Your task to perform on an android device: Go to Android settings Image 0: 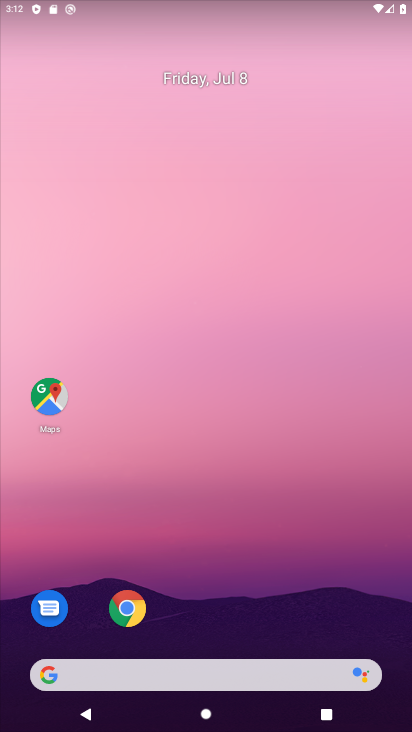
Step 0: drag from (222, 559) to (230, 152)
Your task to perform on an android device: Go to Android settings Image 1: 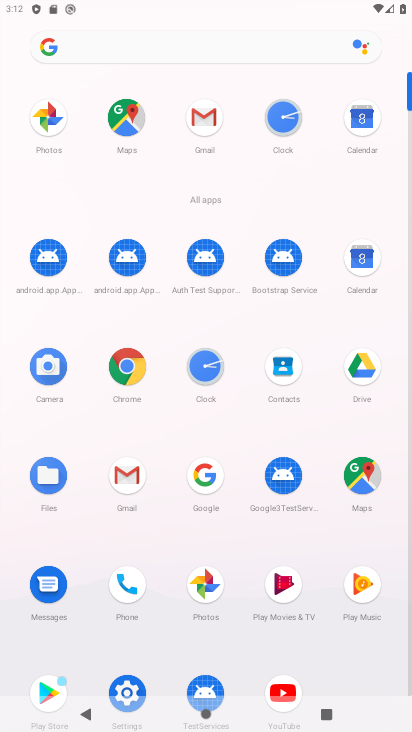
Step 1: click (123, 683)
Your task to perform on an android device: Go to Android settings Image 2: 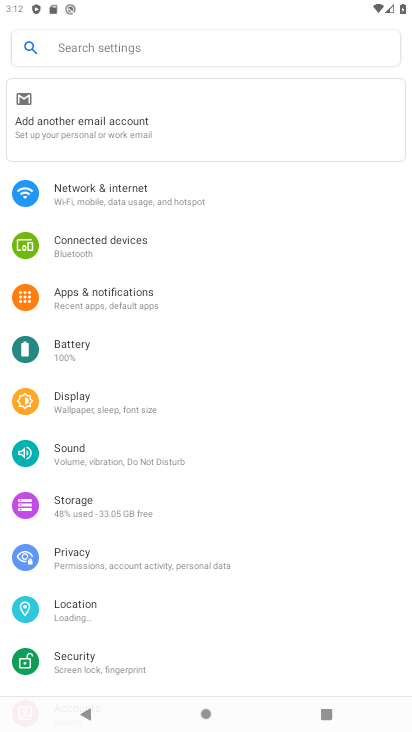
Step 2: drag from (261, 578) to (280, 8)
Your task to perform on an android device: Go to Android settings Image 3: 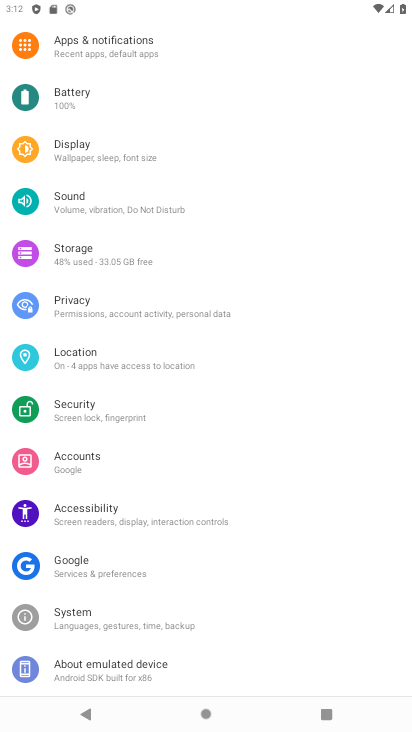
Step 3: click (150, 660)
Your task to perform on an android device: Go to Android settings Image 4: 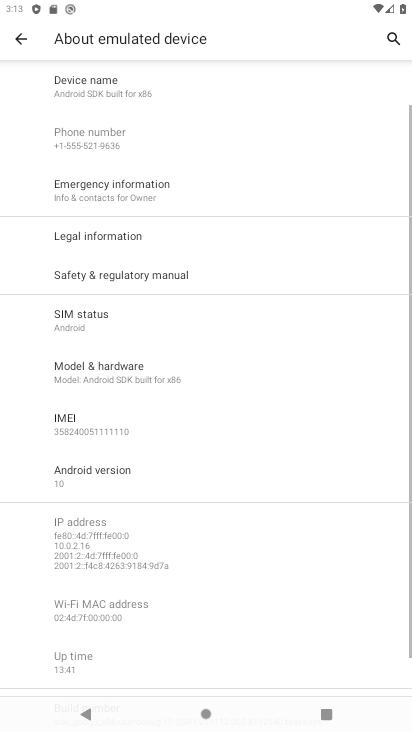
Step 4: drag from (134, 559) to (167, 127)
Your task to perform on an android device: Go to Android settings Image 5: 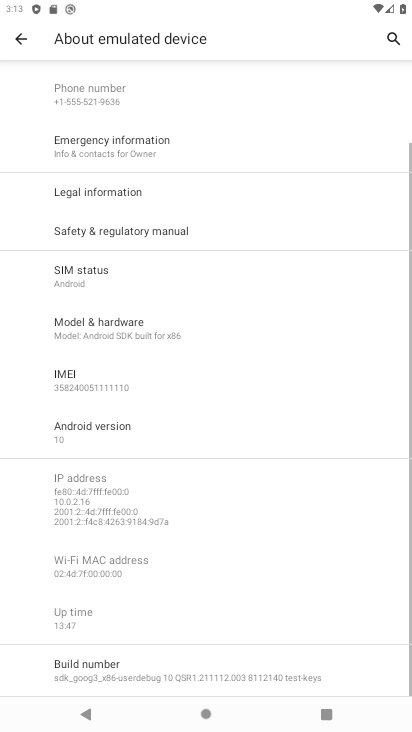
Step 5: click (97, 419)
Your task to perform on an android device: Go to Android settings Image 6: 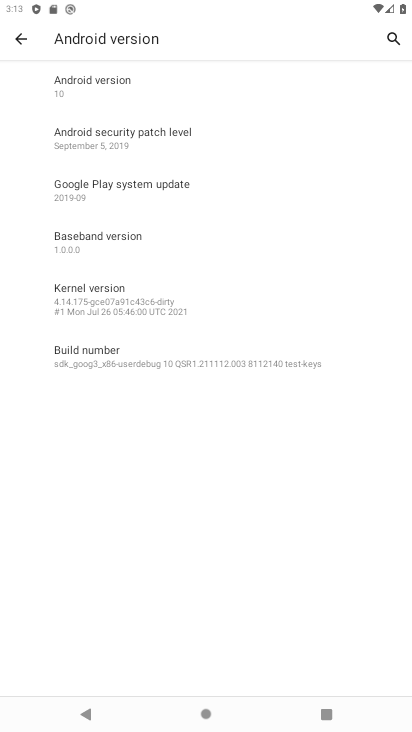
Step 6: task complete